Your task to perform on an android device: toggle wifi Image 0: 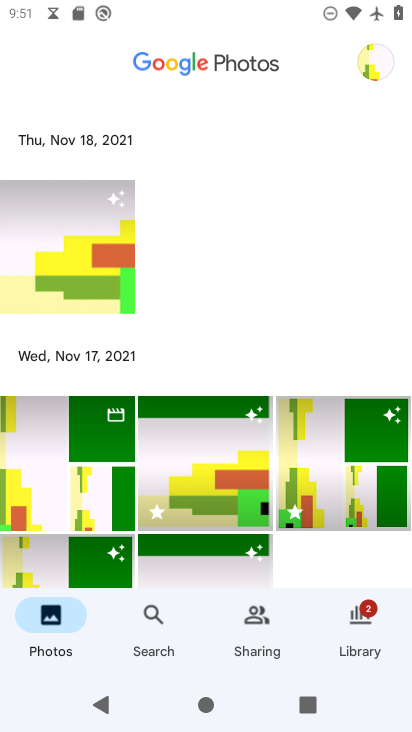
Step 0: press home button
Your task to perform on an android device: toggle wifi Image 1: 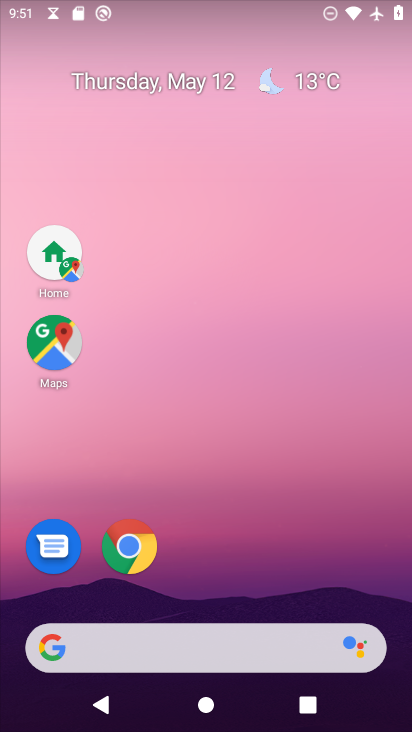
Step 1: drag from (145, 634) to (297, 95)
Your task to perform on an android device: toggle wifi Image 2: 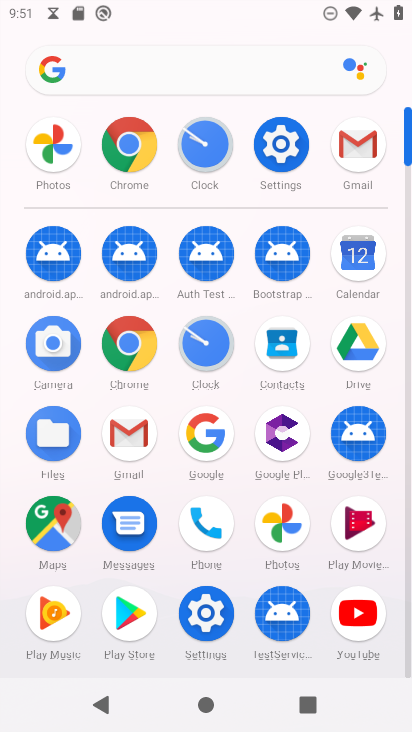
Step 2: click (277, 145)
Your task to perform on an android device: toggle wifi Image 3: 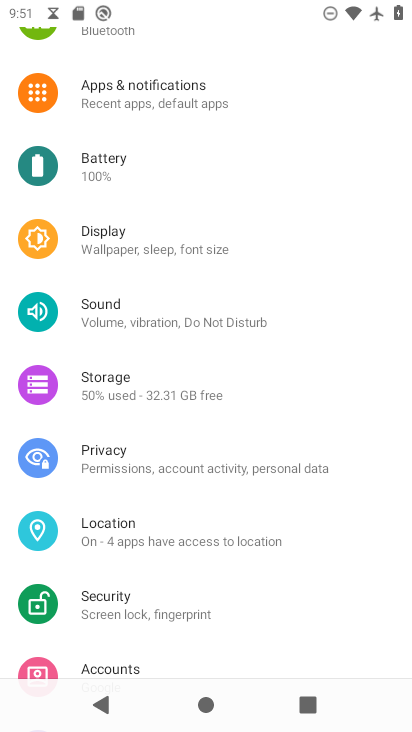
Step 3: drag from (269, 115) to (117, 611)
Your task to perform on an android device: toggle wifi Image 4: 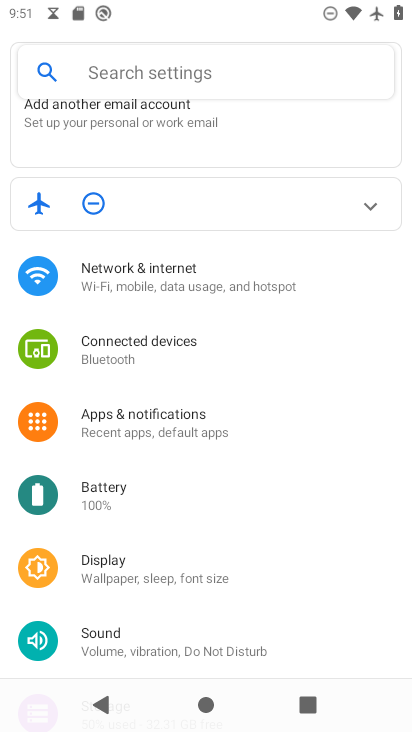
Step 4: click (167, 267)
Your task to perform on an android device: toggle wifi Image 5: 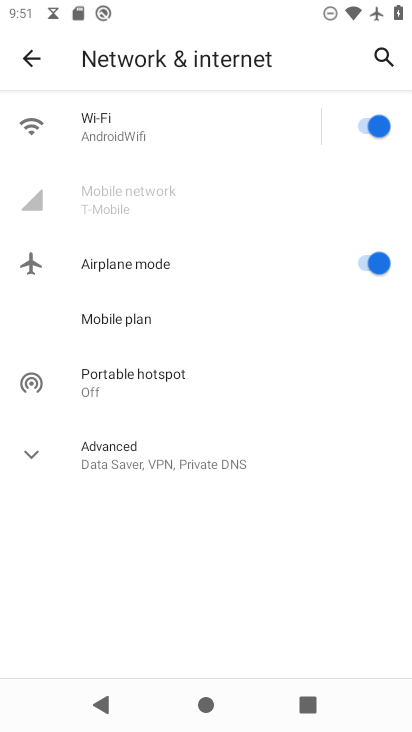
Step 5: click (367, 121)
Your task to perform on an android device: toggle wifi Image 6: 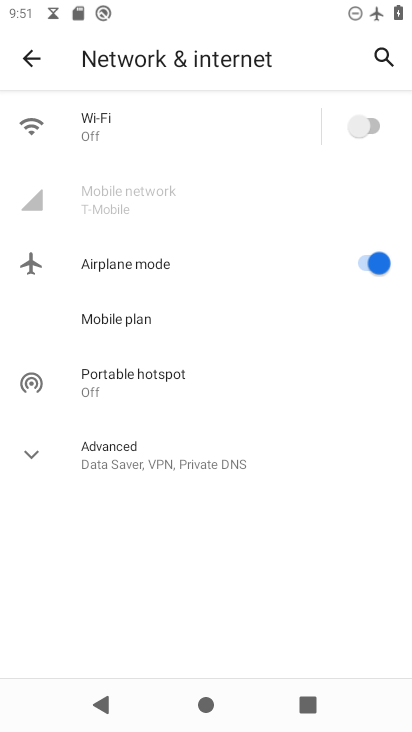
Step 6: task complete